Your task to perform on an android device: Is it going to rain today? Image 0: 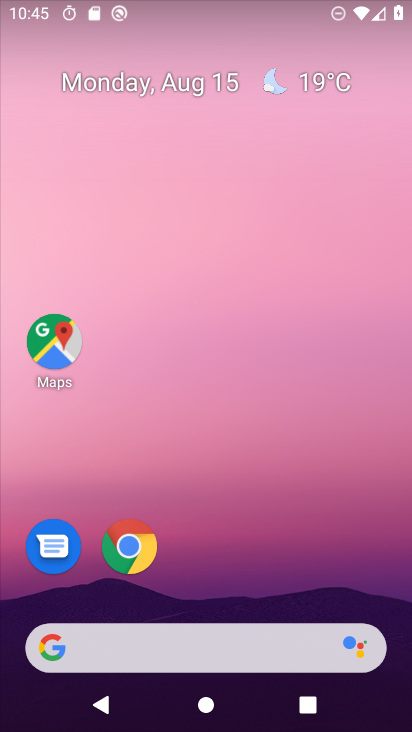
Step 0: click (270, 82)
Your task to perform on an android device: Is it going to rain today? Image 1: 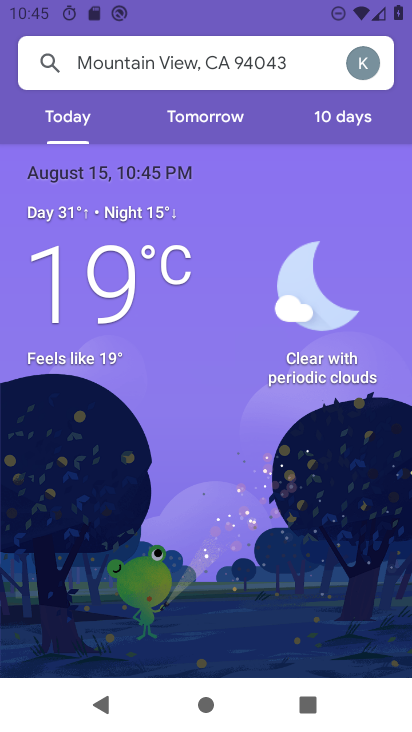
Step 1: task complete